Your task to perform on an android device: Open the calendar app, open the side menu, and click the "Day" option Image 0: 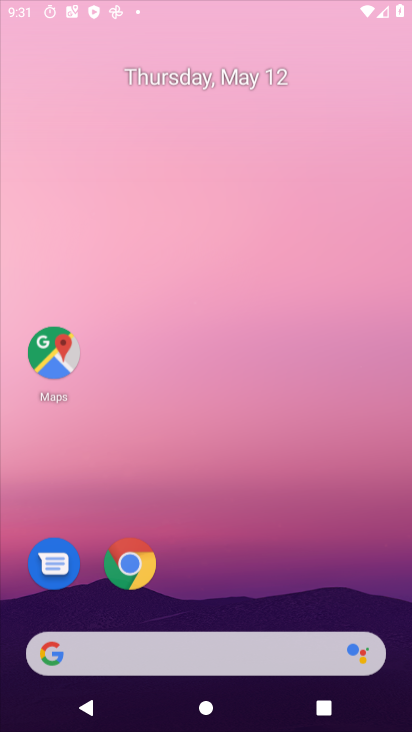
Step 0: drag from (211, 622) to (238, 196)
Your task to perform on an android device: Open the calendar app, open the side menu, and click the "Day" option Image 1: 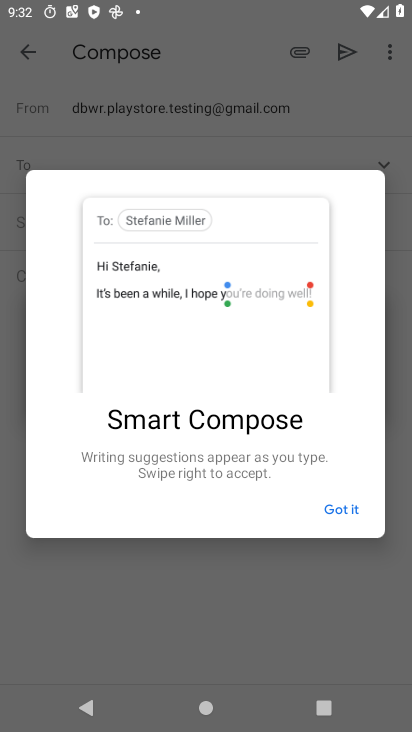
Step 1: press home button
Your task to perform on an android device: Open the calendar app, open the side menu, and click the "Day" option Image 2: 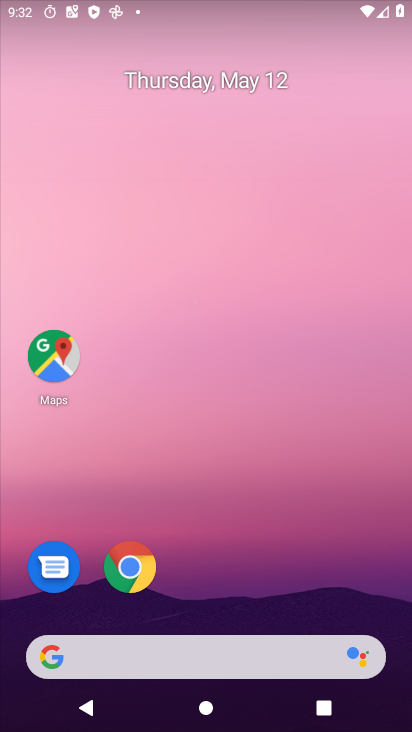
Step 2: drag from (238, 637) to (249, 317)
Your task to perform on an android device: Open the calendar app, open the side menu, and click the "Day" option Image 3: 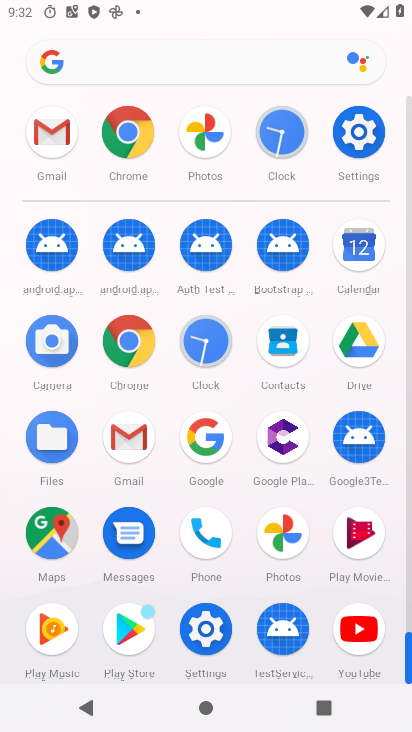
Step 3: click (359, 260)
Your task to perform on an android device: Open the calendar app, open the side menu, and click the "Day" option Image 4: 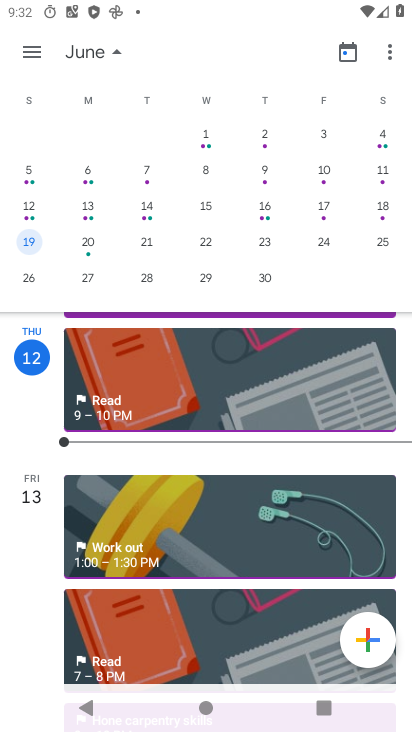
Step 4: click (41, 51)
Your task to perform on an android device: Open the calendar app, open the side menu, and click the "Day" option Image 5: 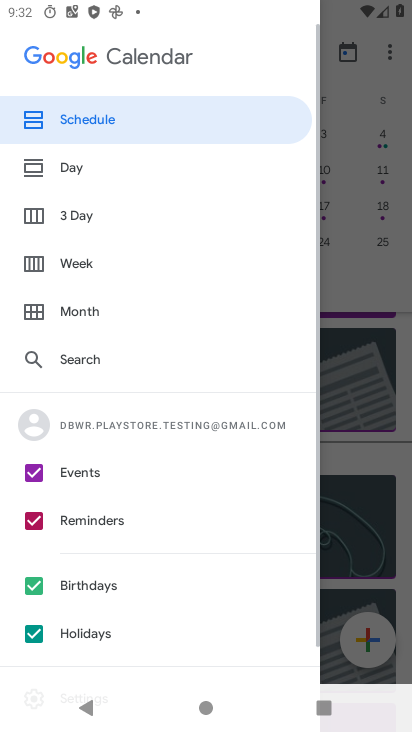
Step 5: click (68, 161)
Your task to perform on an android device: Open the calendar app, open the side menu, and click the "Day" option Image 6: 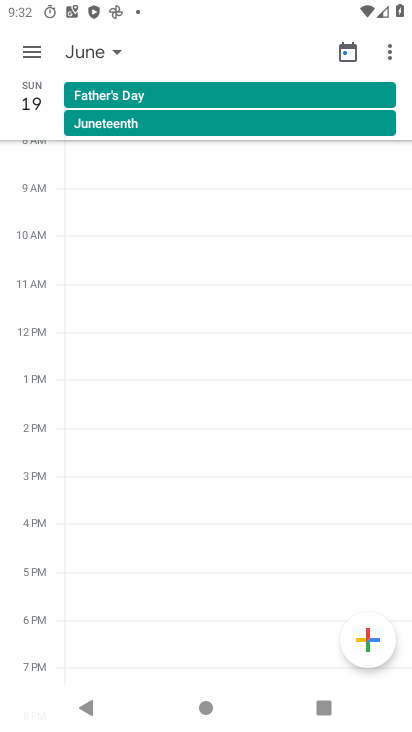
Step 6: task complete